Your task to perform on an android device: Go to calendar. Show me events next week Image 0: 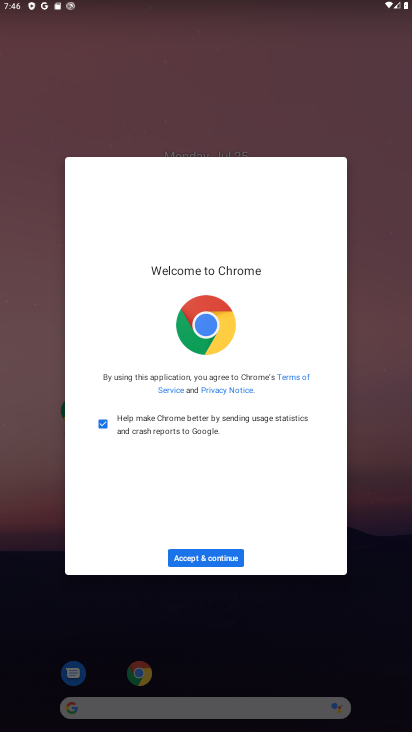
Step 0: press home button
Your task to perform on an android device: Go to calendar. Show me events next week Image 1: 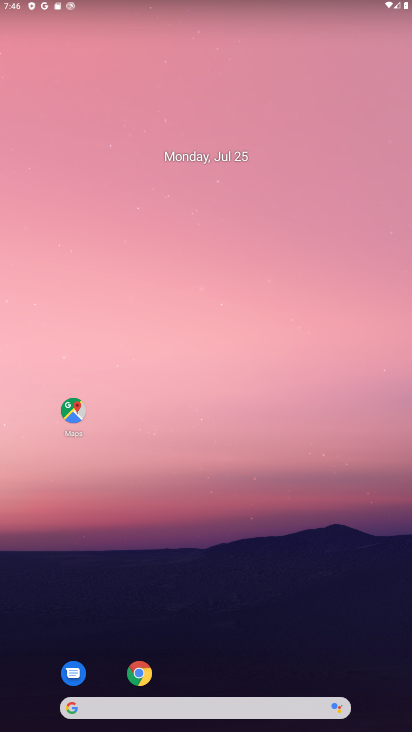
Step 1: drag from (269, 655) to (204, 80)
Your task to perform on an android device: Go to calendar. Show me events next week Image 2: 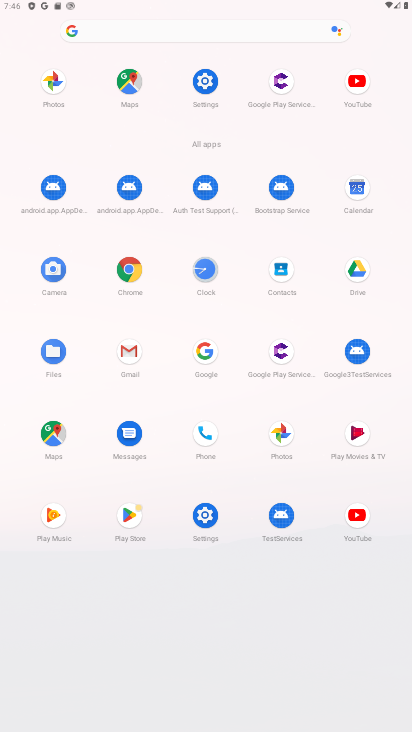
Step 2: click (351, 196)
Your task to perform on an android device: Go to calendar. Show me events next week Image 3: 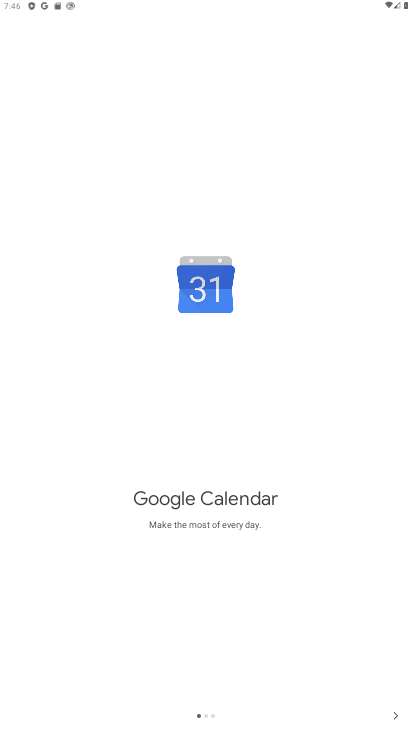
Step 3: task complete